Your task to perform on an android device: make emails show in primary in the gmail app Image 0: 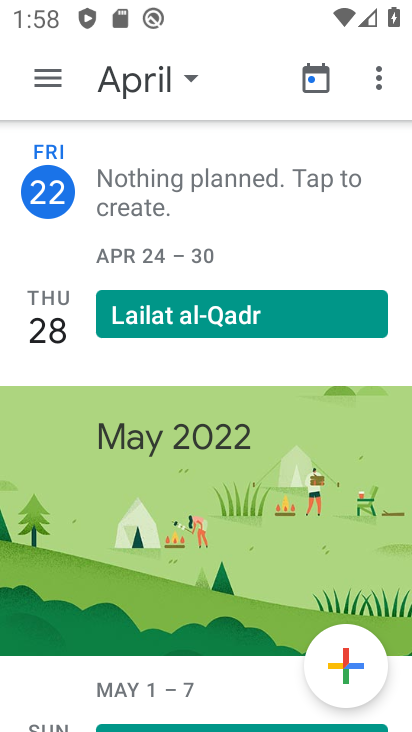
Step 0: press back button
Your task to perform on an android device: make emails show in primary in the gmail app Image 1: 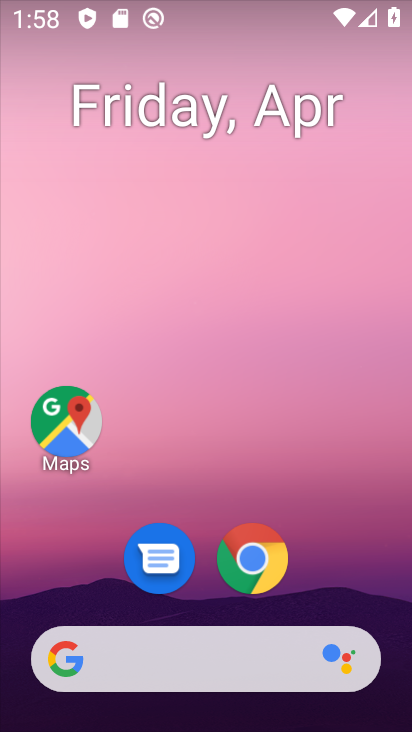
Step 1: drag from (258, 331) to (280, 177)
Your task to perform on an android device: make emails show in primary in the gmail app Image 2: 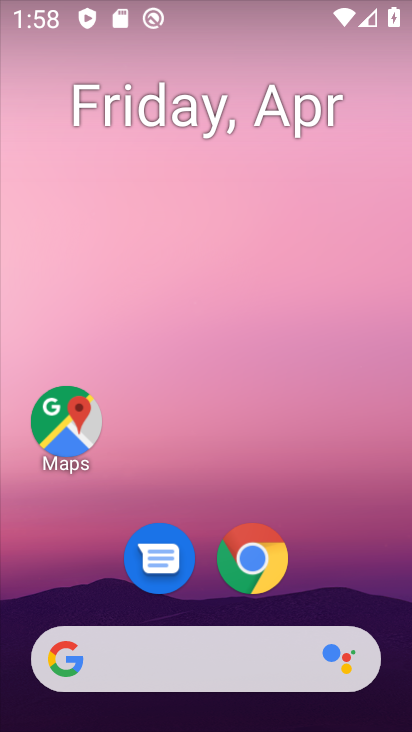
Step 2: drag from (222, 456) to (272, 94)
Your task to perform on an android device: make emails show in primary in the gmail app Image 3: 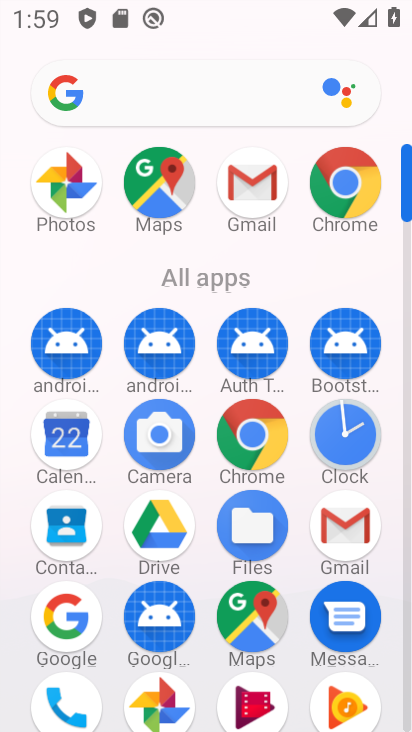
Step 3: click (251, 188)
Your task to perform on an android device: make emails show in primary in the gmail app Image 4: 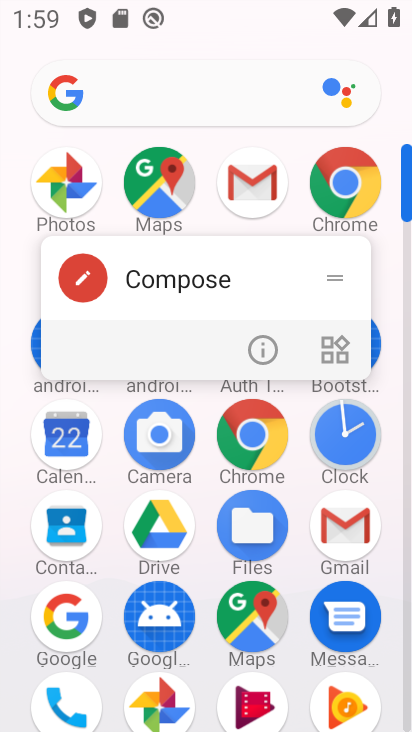
Step 4: click (260, 185)
Your task to perform on an android device: make emails show in primary in the gmail app Image 5: 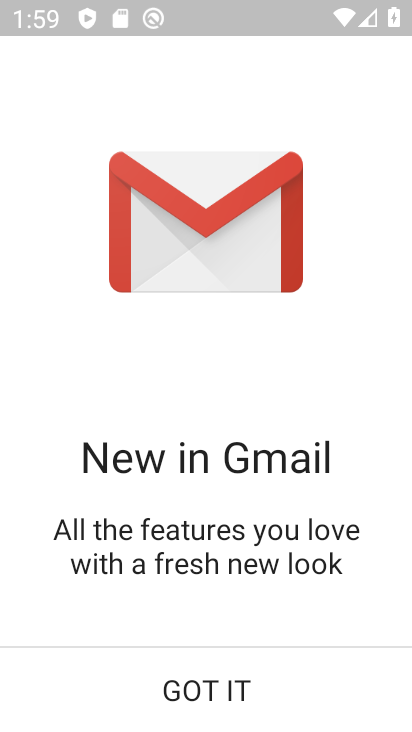
Step 5: click (181, 699)
Your task to perform on an android device: make emails show in primary in the gmail app Image 6: 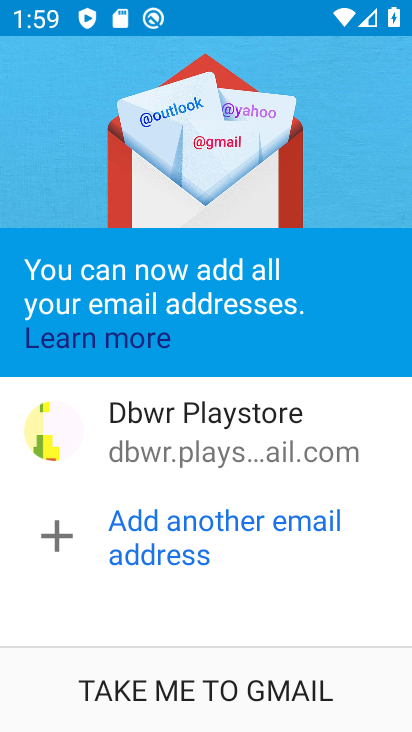
Step 6: click (189, 687)
Your task to perform on an android device: make emails show in primary in the gmail app Image 7: 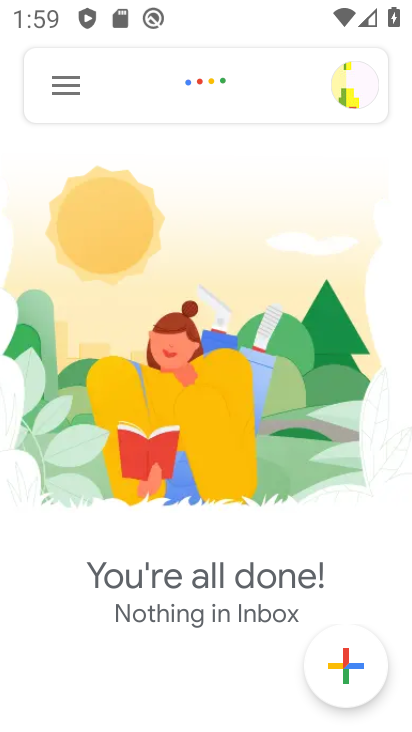
Step 7: click (53, 96)
Your task to perform on an android device: make emails show in primary in the gmail app Image 8: 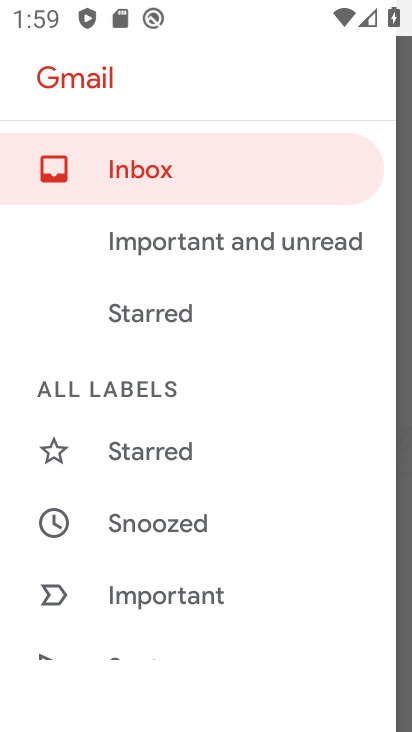
Step 8: drag from (171, 559) to (294, 31)
Your task to perform on an android device: make emails show in primary in the gmail app Image 9: 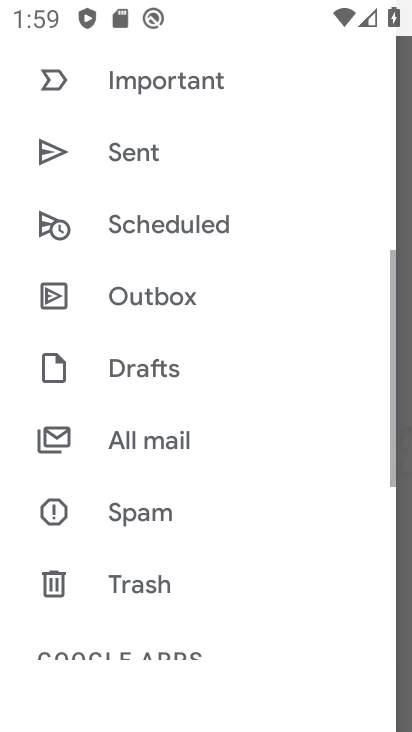
Step 9: drag from (222, 542) to (278, 77)
Your task to perform on an android device: make emails show in primary in the gmail app Image 10: 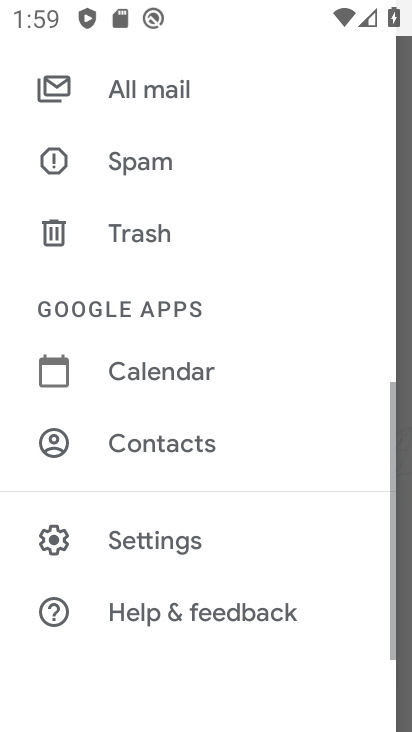
Step 10: click (149, 547)
Your task to perform on an android device: make emails show in primary in the gmail app Image 11: 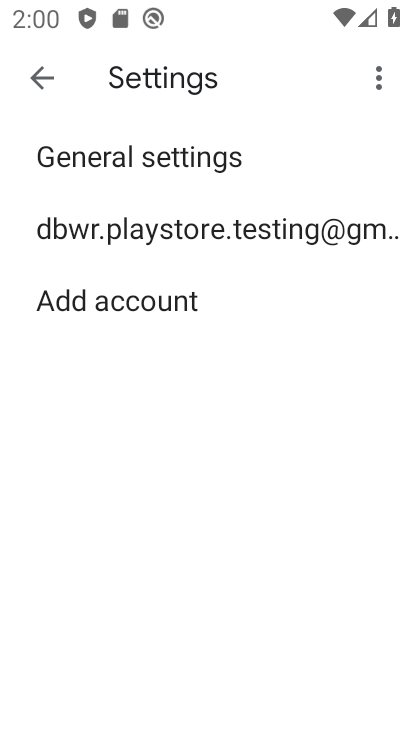
Step 11: click (167, 237)
Your task to perform on an android device: make emails show in primary in the gmail app Image 12: 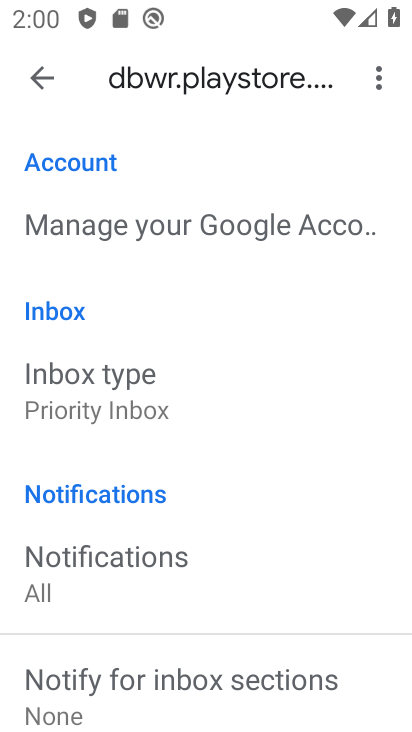
Step 12: task complete